Your task to perform on an android device: Open calendar and show me the first week of next month Image 0: 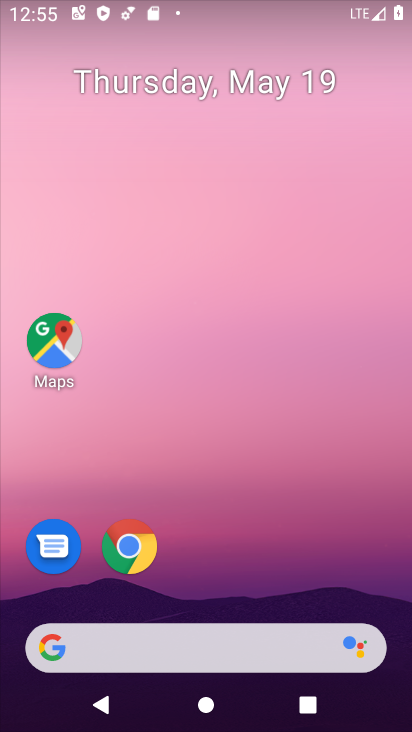
Step 0: click (171, 74)
Your task to perform on an android device: Open calendar and show me the first week of next month Image 1: 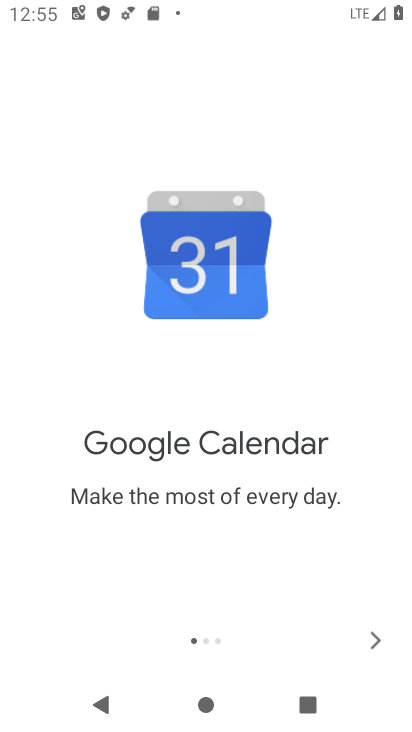
Step 1: click (380, 637)
Your task to perform on an android device: Open calendar and show me the first week of next month Image 2: 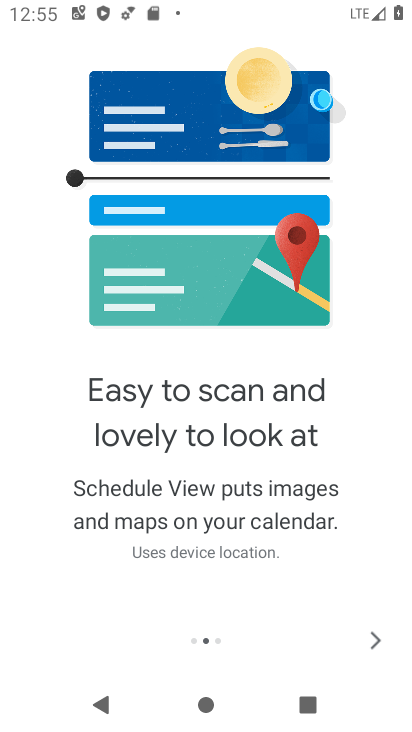
Step 2: click (377, 643)
Your task to perform on an android device: Open calendar and show me the first week of next month Image 3: 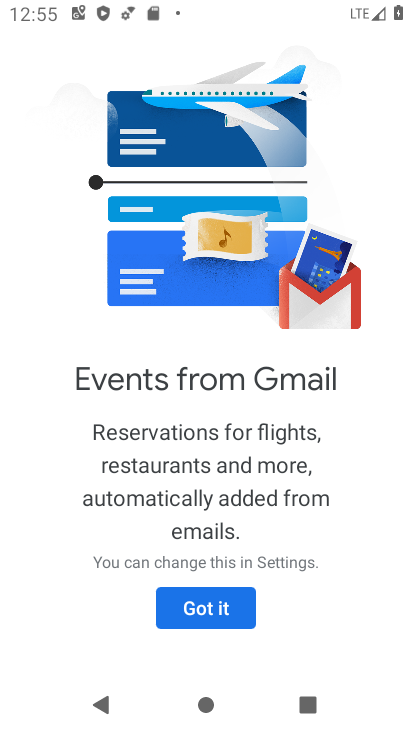
Step 3: click (231, 609)
Your task to perform on an android device: Open calendar and show me the first week of next month Image 4: 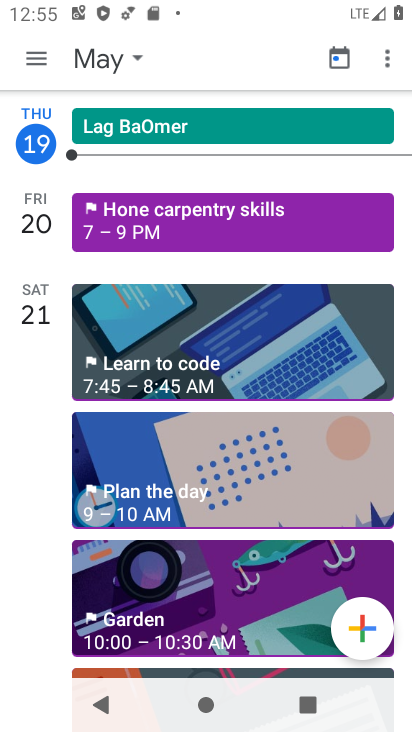
Step 4: click (400, 67)
Your task to perform on an android device: Open calendar and show me the first week of next month Image 5: 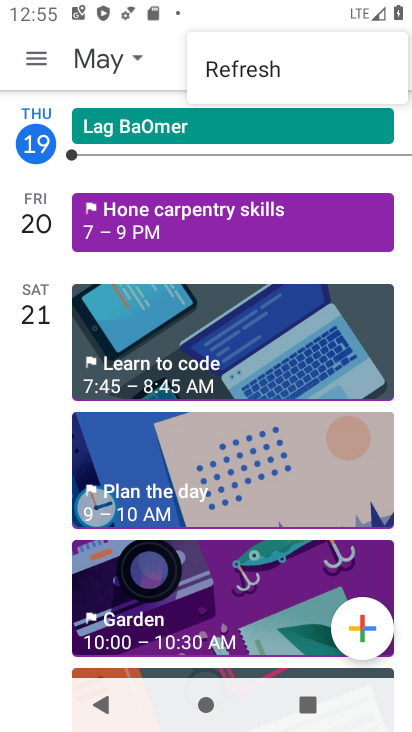
Step 5: click (134, 68)
Your task to perform on an android device: Open calendar and show me the first week of next month Image 6: 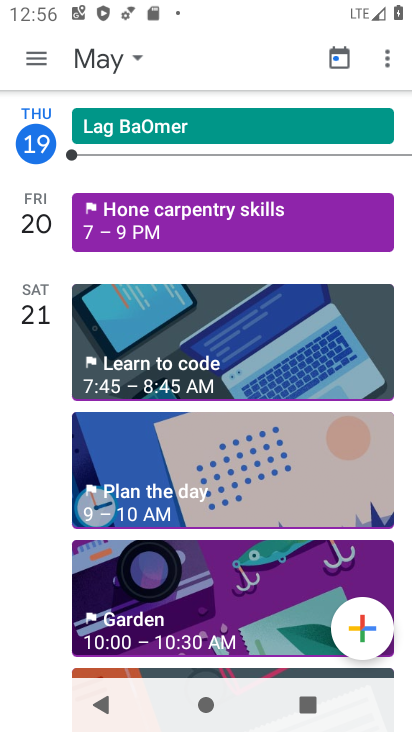
Step 6: click (120, 57)
Your task to perform on an android device: Open calendar and show me the first week of next month Image 7: 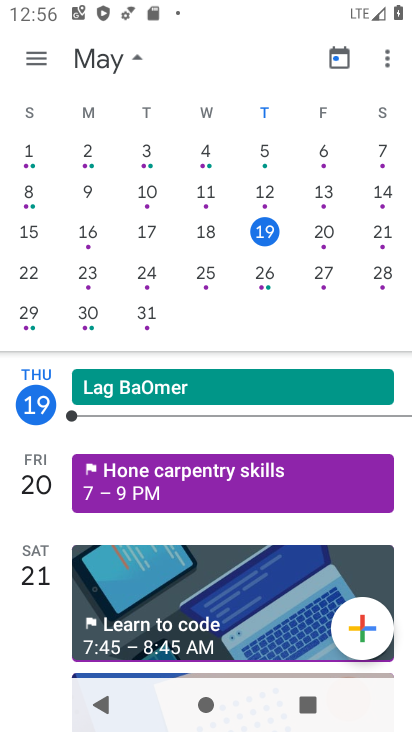
Step 7: drag from (305, 313) to (0, 346)
Your task to perform on an android device: Open calendar and show me the first week of next month Image 8: 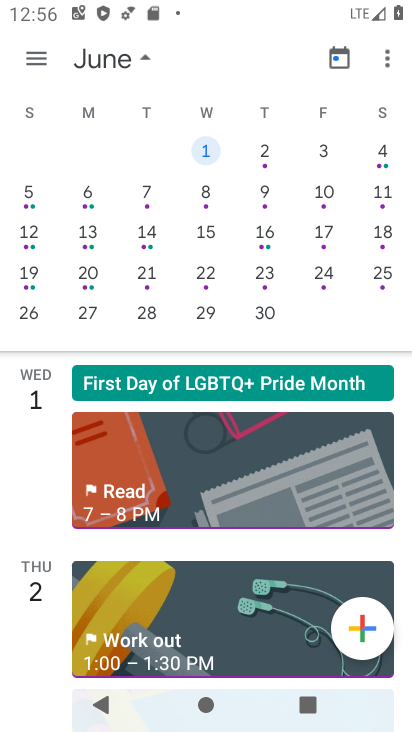
Step 8: click (325, 157)
Your task to perform on an android device: Open calendar and show me the first week of next month Image 9: 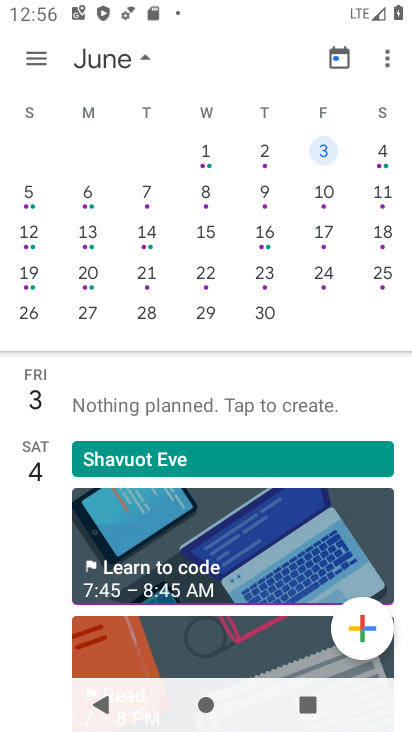
Step 9: task complete